Your task to perform on an android device: set the stopwatch Image 0: 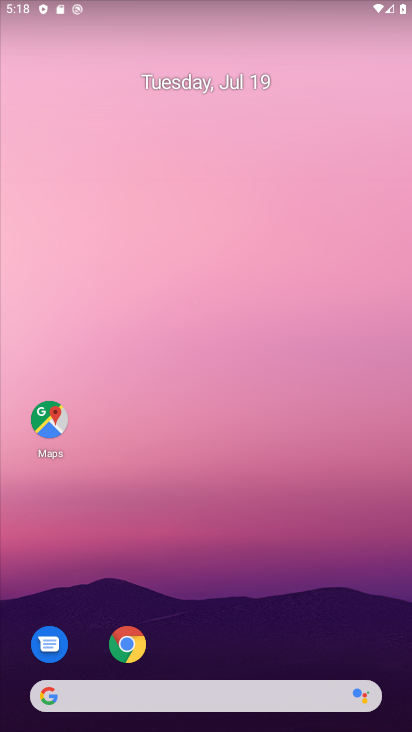
Step 0: drag from (248, 558) to (237, 295)
Your task to perform on an android device: set the stopwatch Image 1: 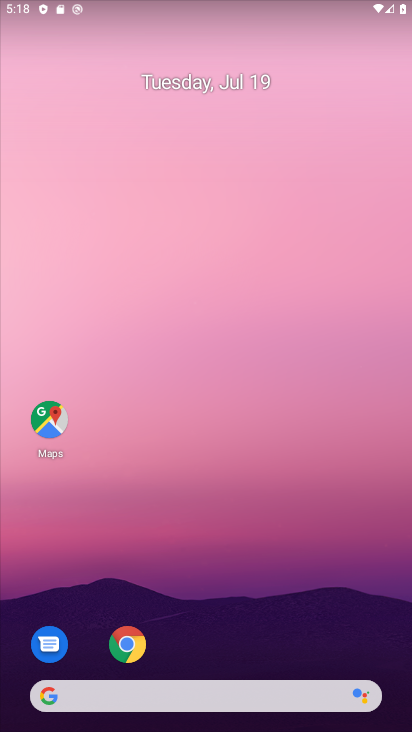
Step 1: drag from (312, 662) to (197, 237)
Your task to perform on an android device: set the stopwatch Image 2: 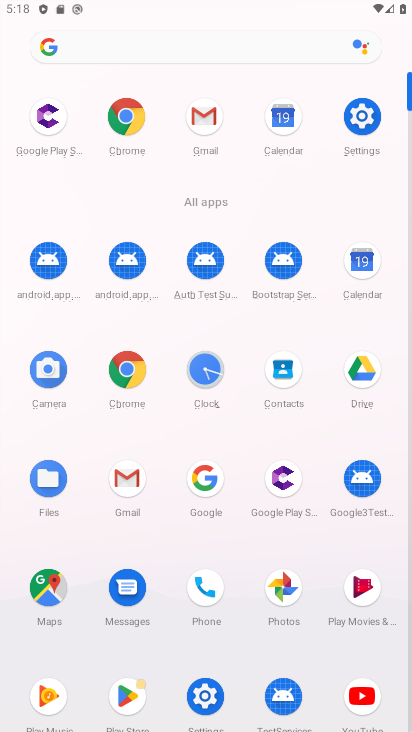
Step 2: click (199, 379)
Your task to perform on an android device: set the stopwatch Image 3: 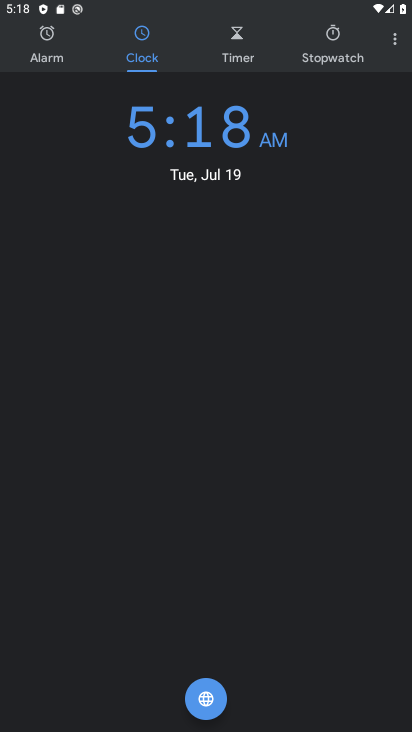
Step 3: click (330, 34)
Your task to perform on an android device: set the stopwatch Image 4: 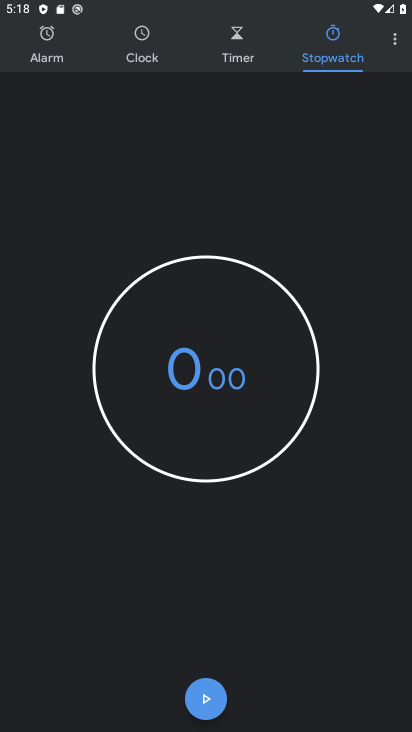
Step 4: click (209, 698)
Your task to perform on an android device: set the stopwatch Image 5: 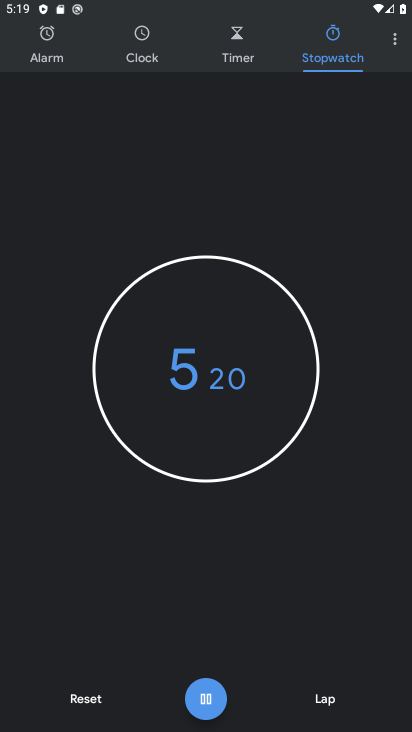
Step 5: click (206, 700)
Your task to perform on an android device: set the stopwatch Image 6: 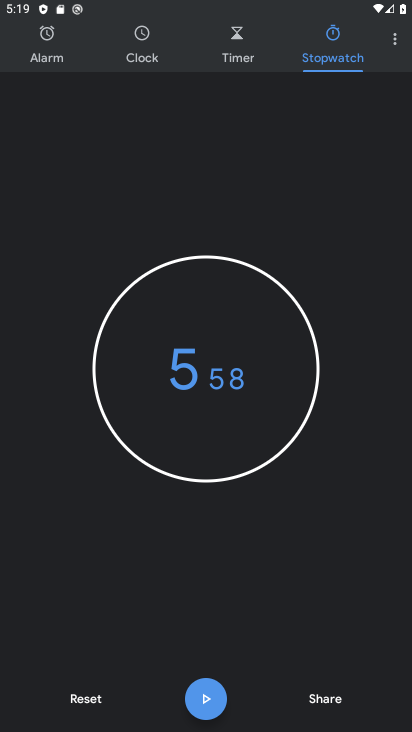
Step 6: task complete